Your task to perform on an android device: turn smart compose on in the gmail app Image 0: 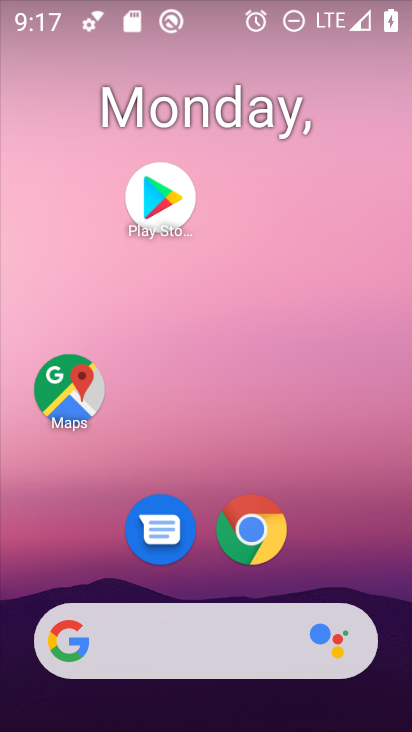
Step 0: drag from (345, 534) to (152, 135)
Your task to perform on an android device: turn smart compose on in the gmail app Image 1: 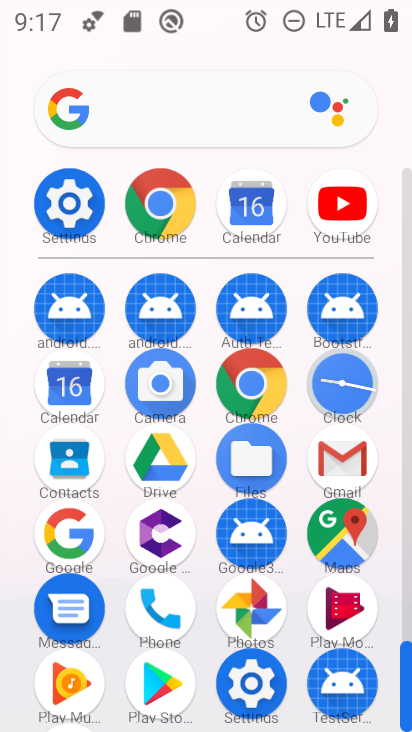
Step 1: click (341, 457)
Your task to perform on an android device: turn smart compose on in the gmail app Image 2: 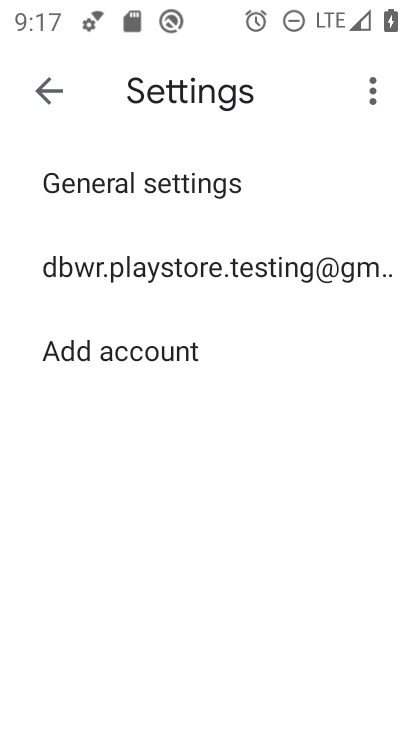
Step 2: click (182, 262)
Your task to perform on an android device: turn smart compose on in the gmail app Image 3: 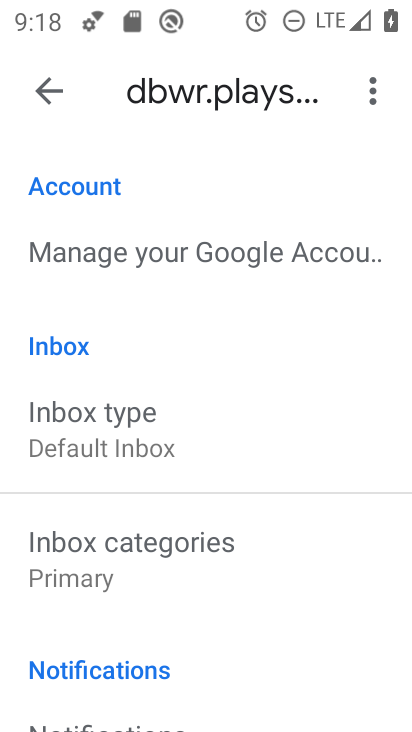
Step 3: drag from (194, 562) to (125, 182)
Your task to perform on an android device: turn smart compose on in the gmail app Image 4: 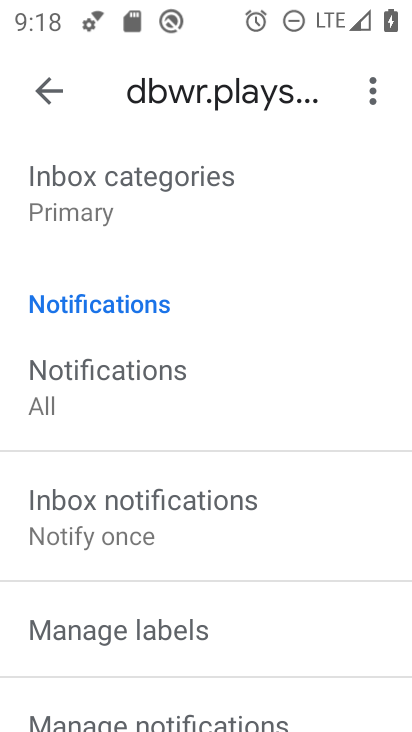
Step 4: drag from (230, 546) to (192, 282)
Your task to perform on an android device: turn smart compose on in the gmail app Image 5: 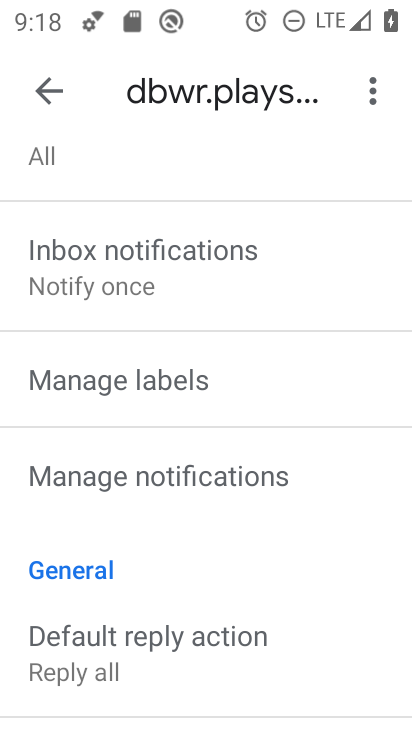
Step 5: drag from (216, 551) to (193, 300)
Your task to perform on an android device: turn smart compose on in the gmail app Image 6: 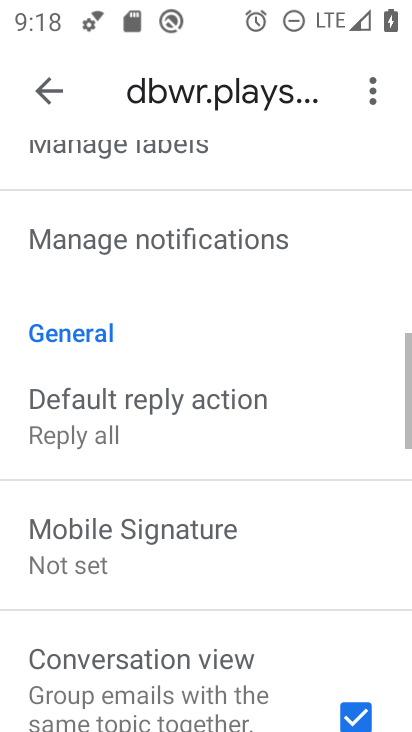
Step 6: drag from (217, 599) to (217, 209)
Your task to perform on an android device: turn smart compose on in the gmail app Image 7: 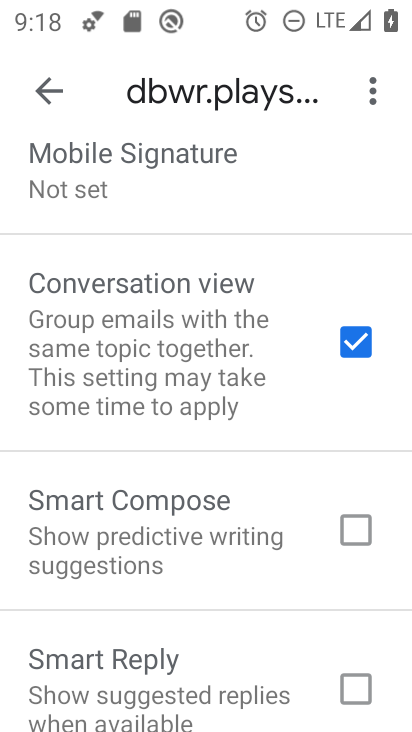
Step 7: drag from (240, 595) to (221, 355)
Your task to perform on an android device: turn smart compose on in the gmail app Image 8: 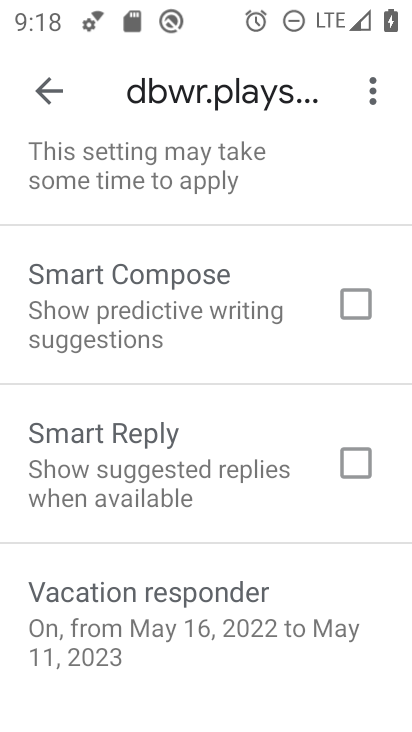
Step 8: click (355, 302)
Your task to perform on an android device: turn smart compose on in the gmail app Image 9: 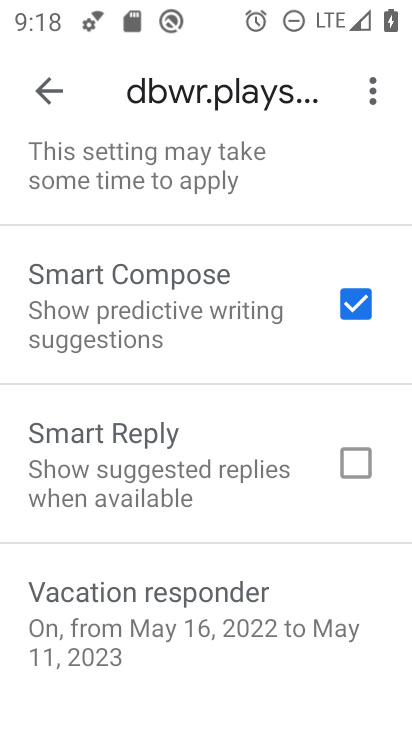
Step 9: task complete